Your task to perform on an android device: What's the weather? Image 0: 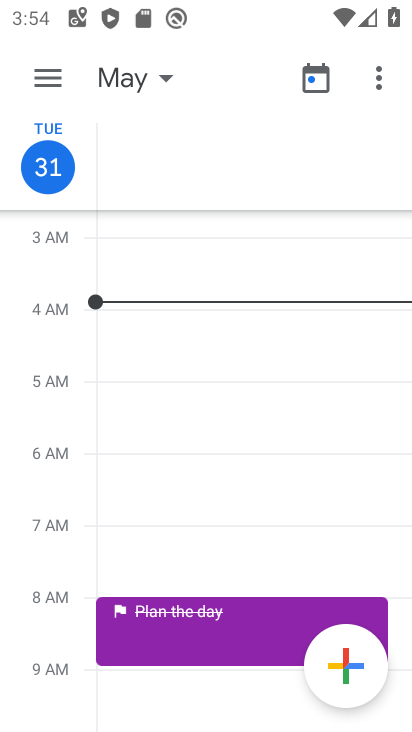
Step 0: press home button
Your task to perform on an android device: What's the weather? Image 1: 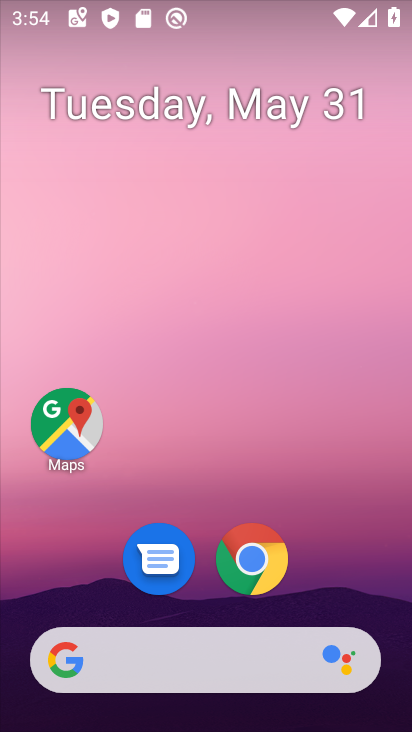
Step 1: drag from (219, 719) to (194, 250)
Your task to perform on an android device: What's the weather? Image 2: 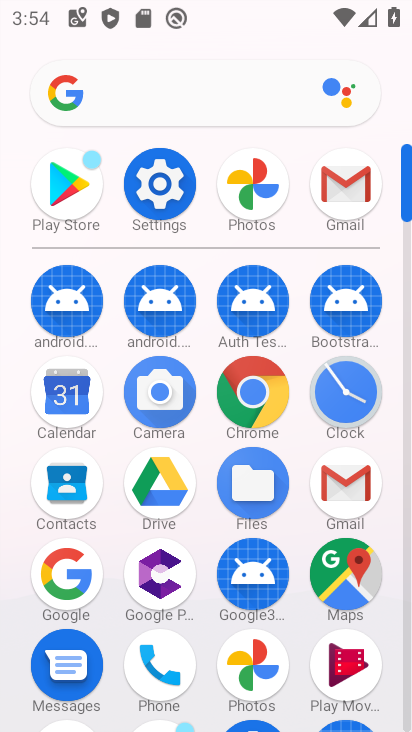
Step 2: click (69, 568)
Your task to perform on an android device: What's the weather? Image 3: 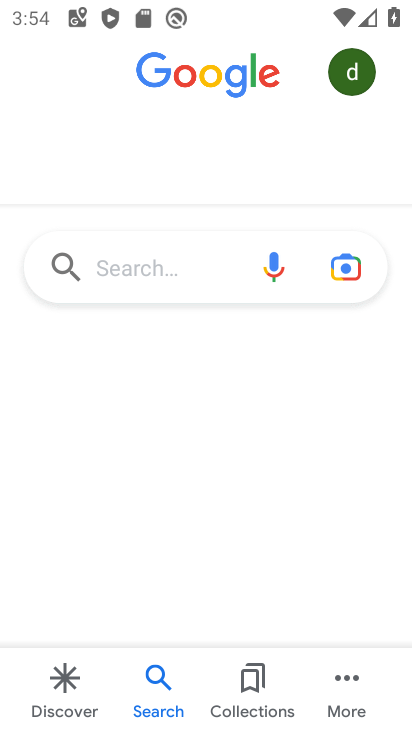
Step 3: click (188, 260)
Your task to perform on an android device: What's the weather? Image 4: 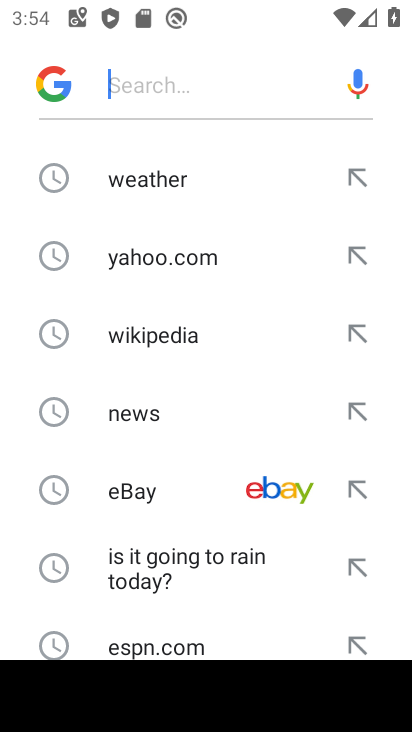
Step 4: click (138, 177)
Your task to perform on an android device: What's the weather? Image 5: 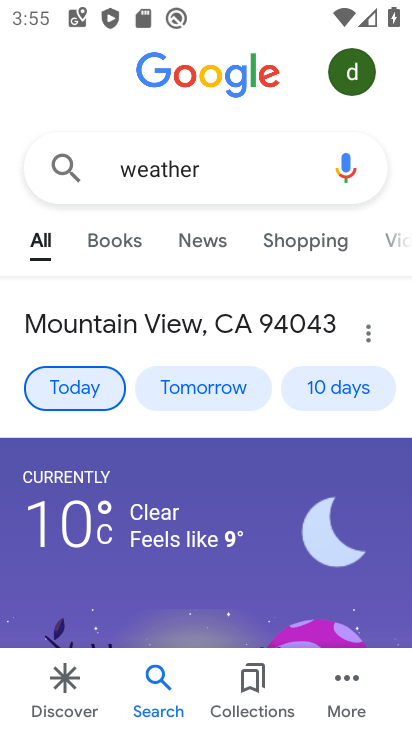
Step 5: click (79, 387)
Your task to perform on an android device: What's the weather? Image 6: 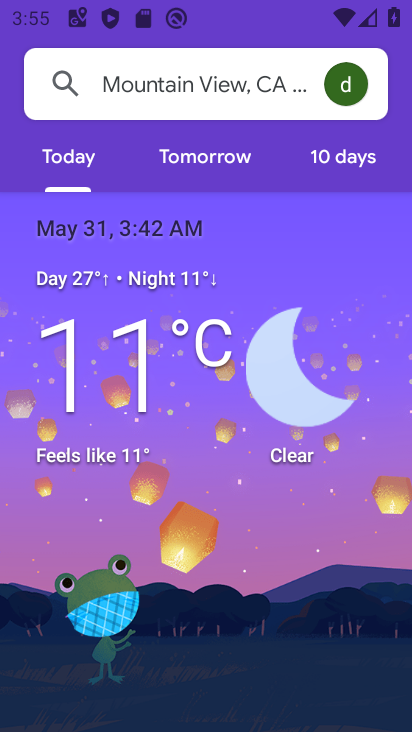
Step 6: task complete